Your task to perform on an android device: Go to Reddit.com Image 0: 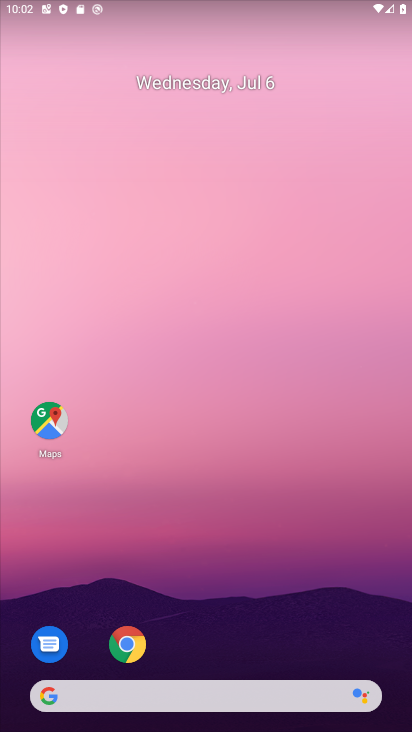
Step 0: drag from (252, 719) to (77, 192)
Your task to perform on an android device: Go to Reddit.com Image 1: 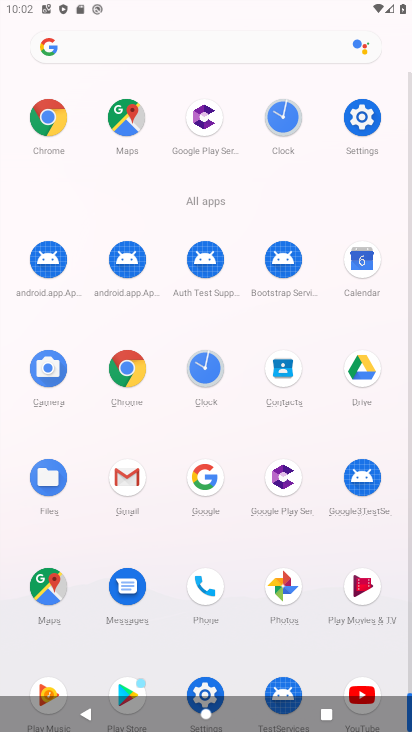
Step 1: click (134, 366)
Your task to perform on an android device: Go to Reddit.com Image 2: 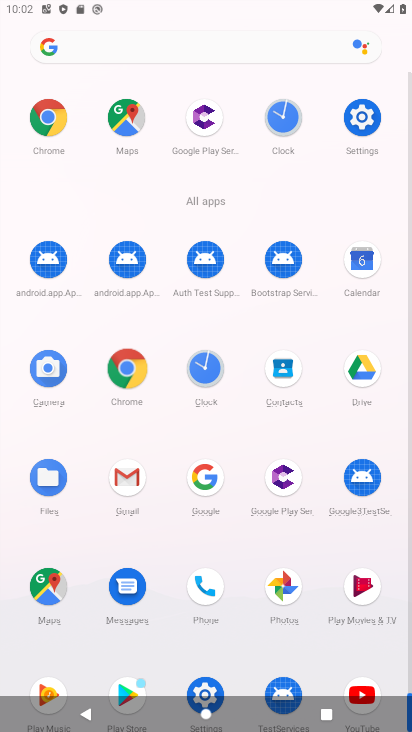
Step 2: click (134, 369)
Your task to perform on an android device: Go to Reddit.com Image 3: 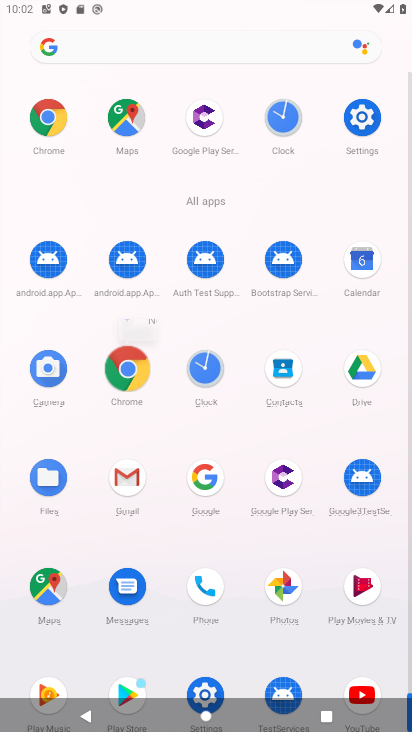
Step 3: click (135, 379)
Your task to perform on an android device: Go to Reddit.com Image 4: 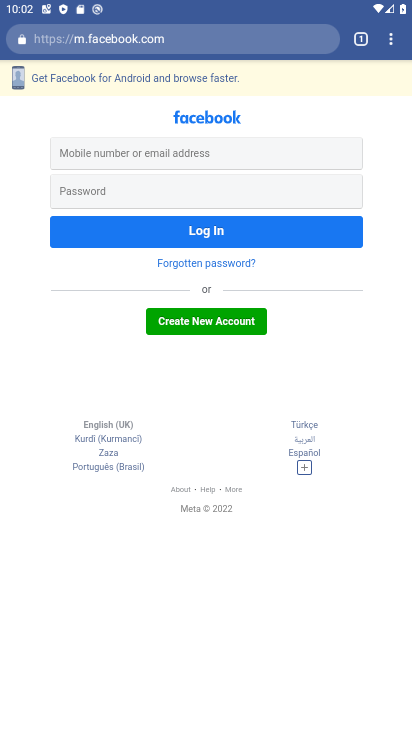
Step 4: press back button
Your task to perform on an android device: Go to Reddit.com Image 5: 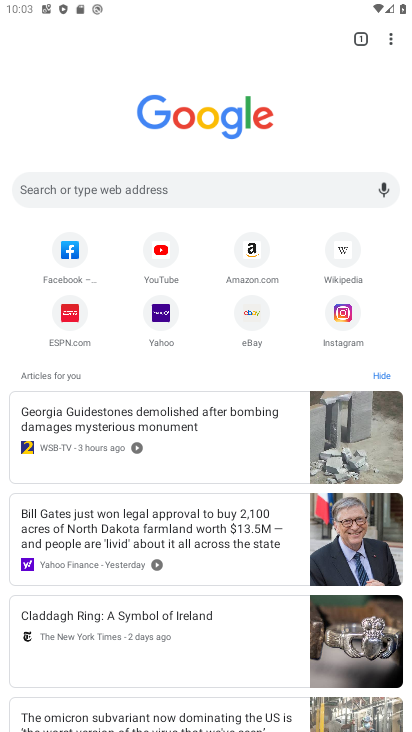
Step 5: click (104, 195)
Your task to perform on an android device: Go to Reddit.com Image 6: 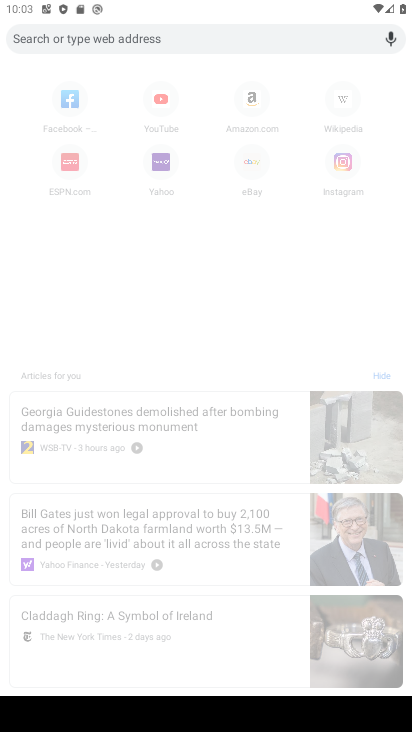
Step 6: type "reddit.com"
Your task to perform on an android device: Go to Reddit.com Image 7: 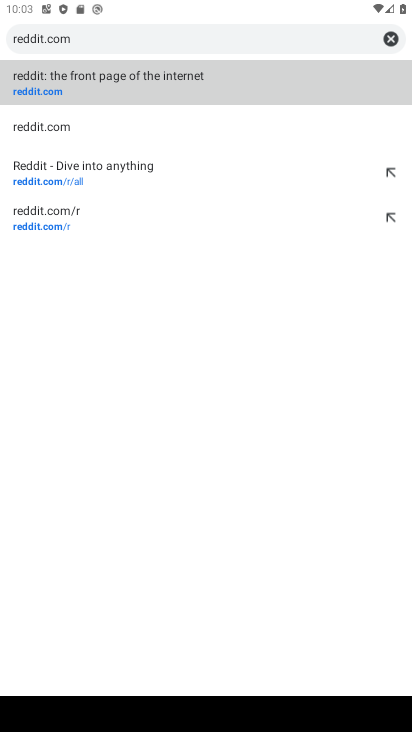
Step 7: click (39, 124)
Your task to perform on an android device: Go to Reddit.com Image 8: 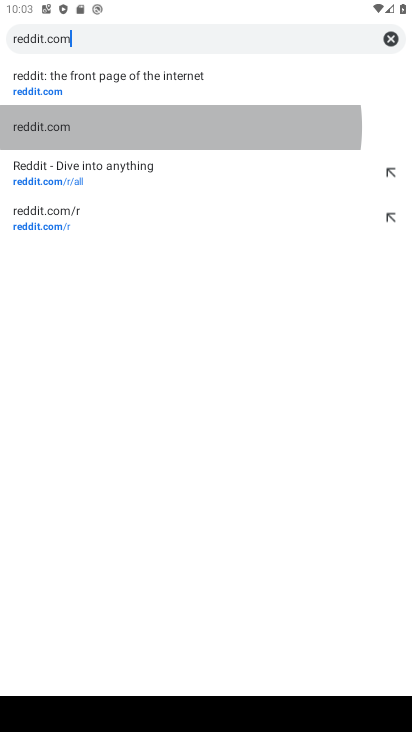
Step 8: click (38, 122)
Your task to perform on an android device: Go to Reddit.com Image 9: 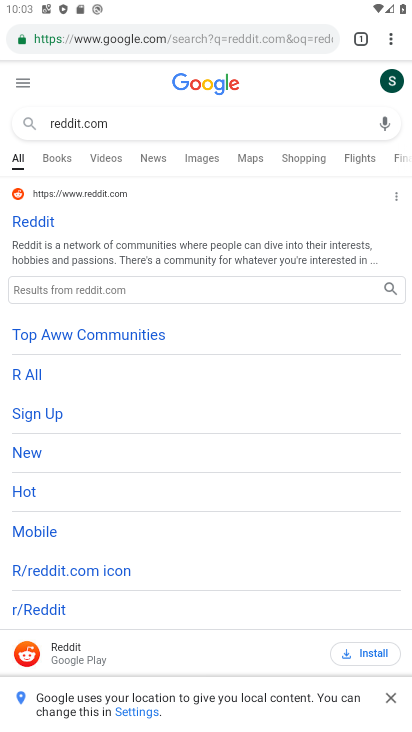
Step 9: task complete